Your task to perform on an android device: Open notification settings Image 0: 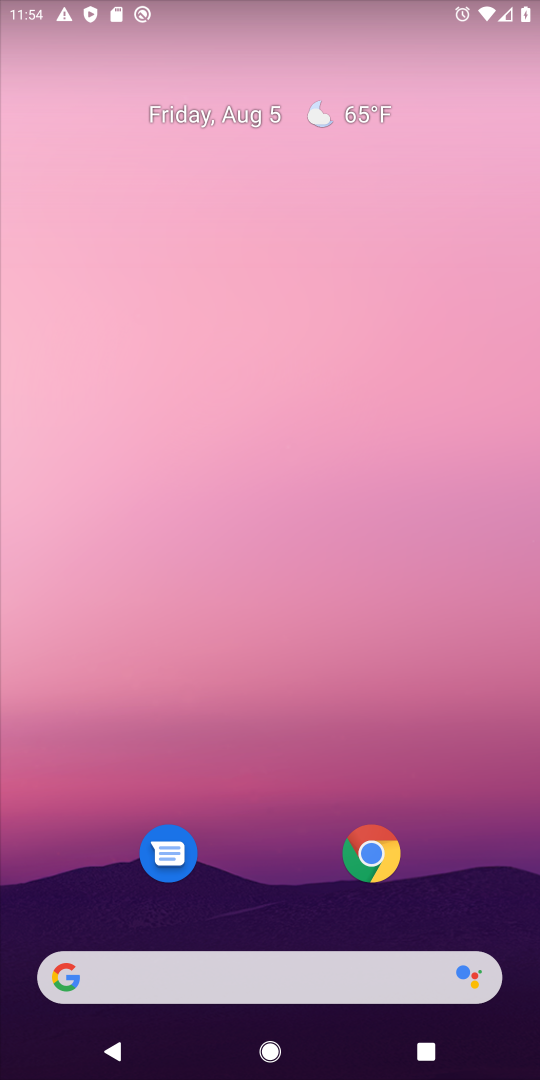
Step 0: drag from (249, 911) to (253, 261)
Your task to perform on an android device: Open notification settings Image 1: 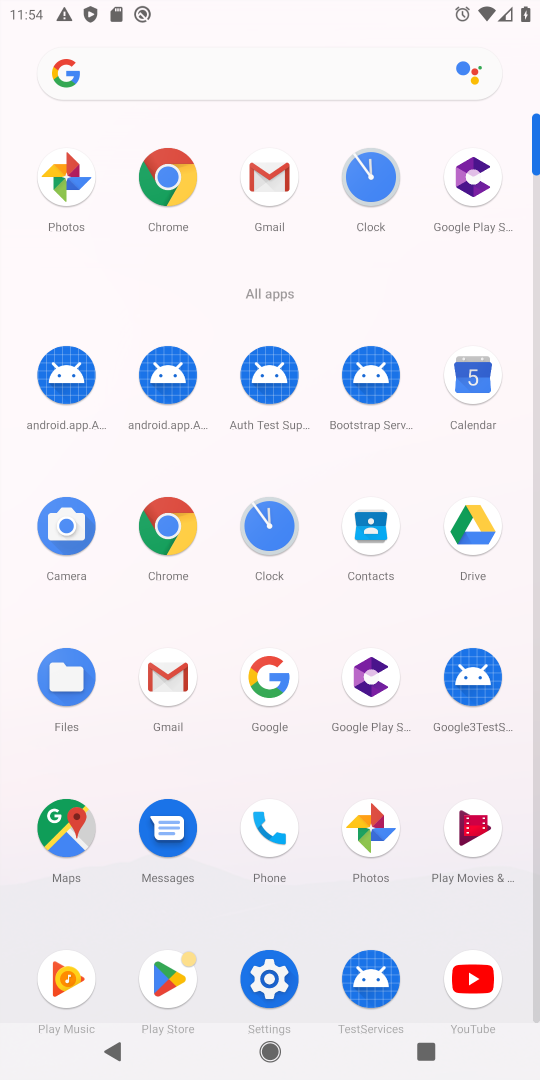
Step 1: click (269, 962)
Your task to perform on an android device: Open notification settings Image 2: 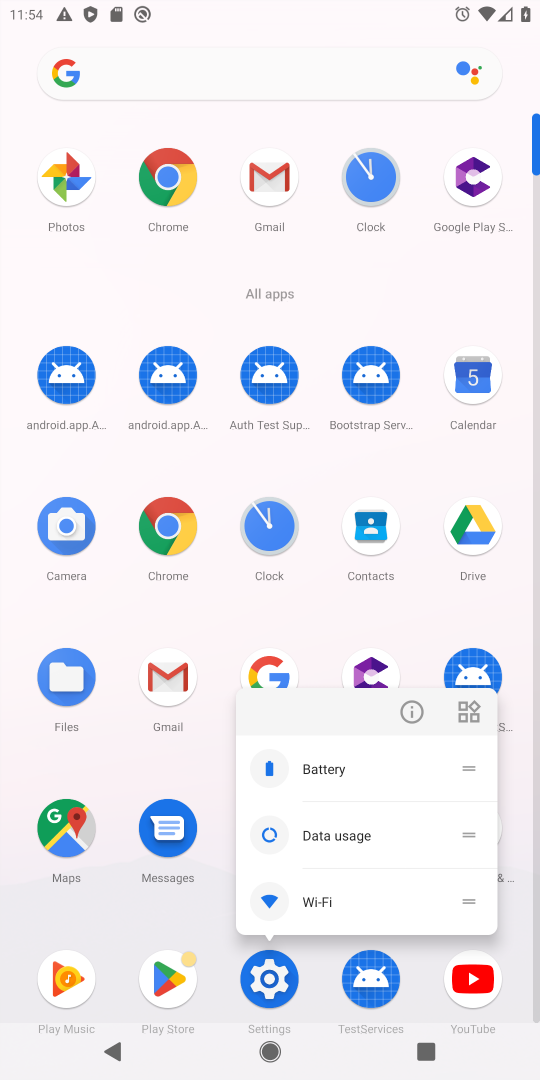
Step 2: click (268, 983)
Your task to perform on an android device: Open notification settings Image 3: 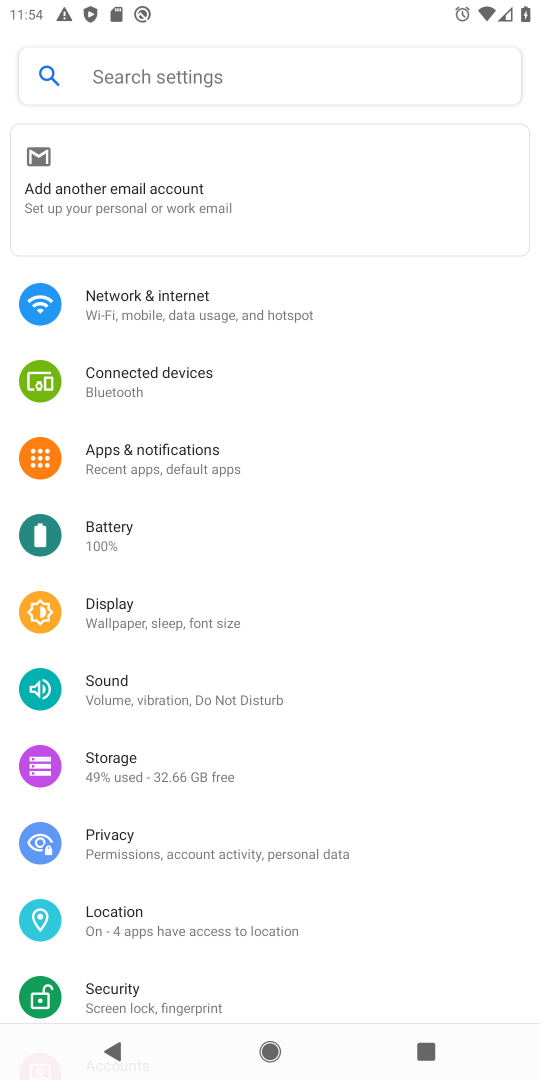
Step 3: click (156, 471)
Your task to perform on an android device: Open notification settings Image 4: 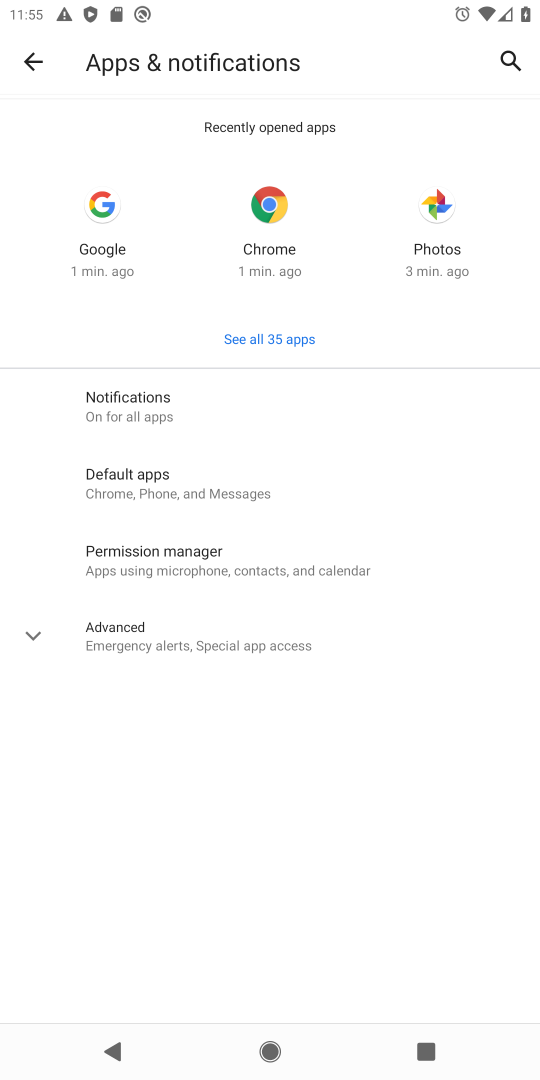
Step 4: task complete